Your task to perform on an android device: Open accessibility settings Image 0: 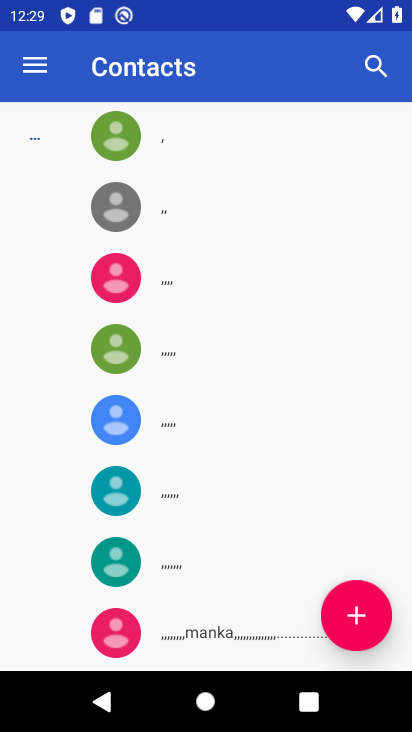
Step 0: press home button
Your task to perform on an android device: Open accessibility settings Image 1: 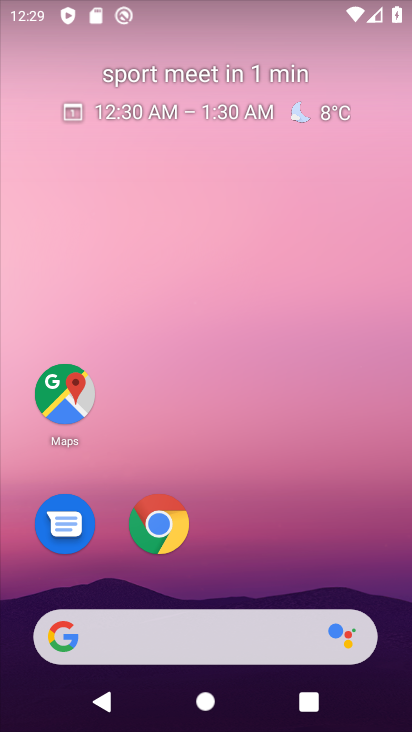
Step 1: drag from (250, 515) to (251, 15)
Your task to perform on an android device: Open accessibility settings Image 2: 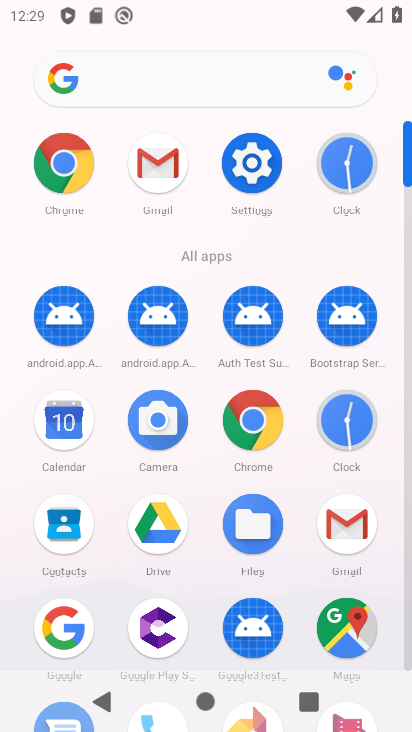
Step 2: click (243, 158)
Your task to perform on an android device: Open accessibility settings Image 3: 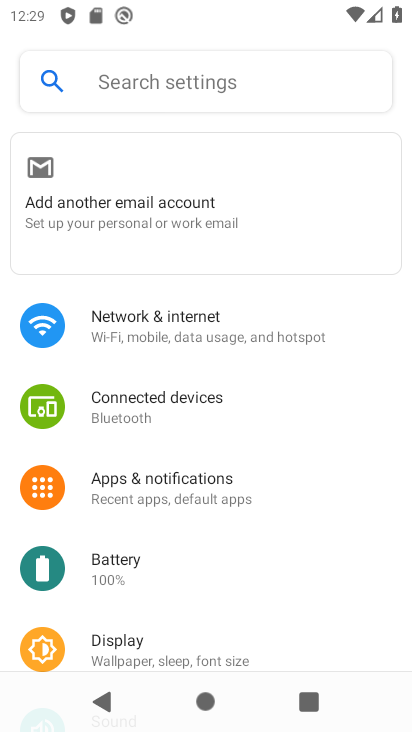
Step 3: drag from (194, 592) to (242, 77)
Your task to perform on an android device: Open accessibility settings Image 4: 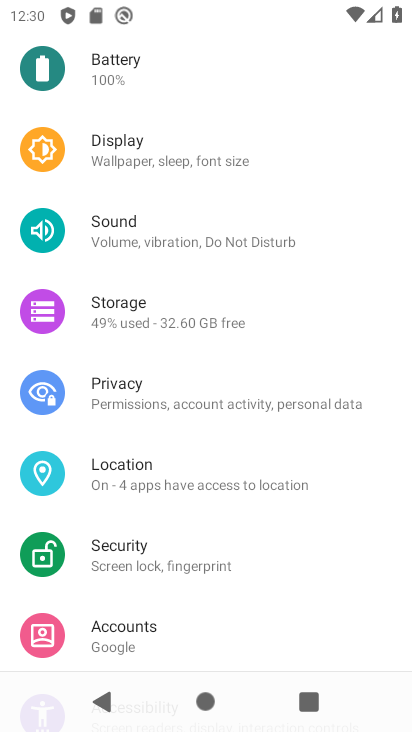
Step 4: drag from (190, 595) to (261, 82)
Your task to perform on an android device: Open accessibility settings Image 5: 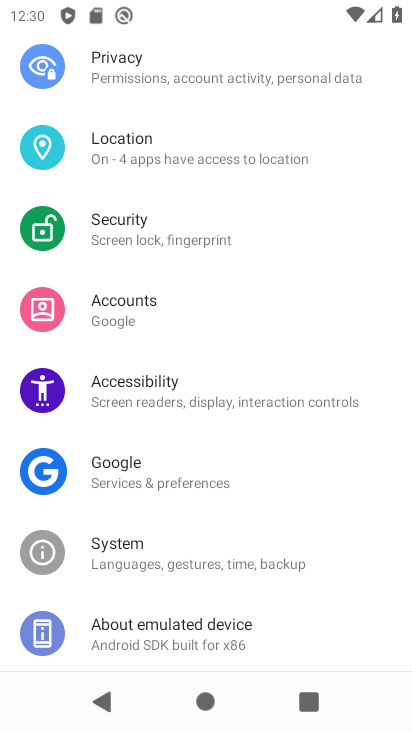
Step 5: click (174, 392)
Your task to perform on an android device: Open accessibility settings Image 6: 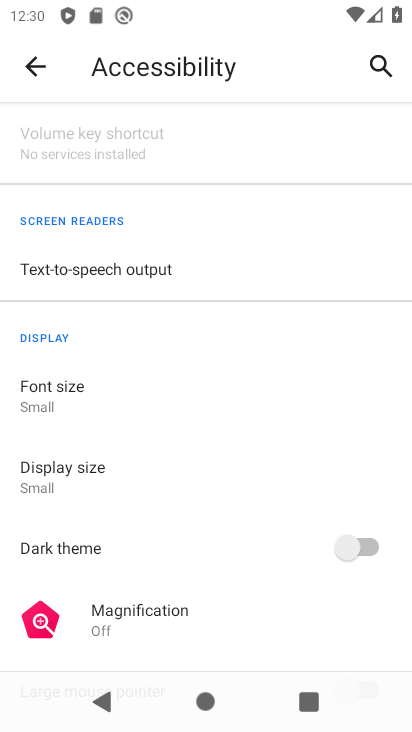
Step 6: task complete